Your task to perform on an android device: Open settings Image 0: 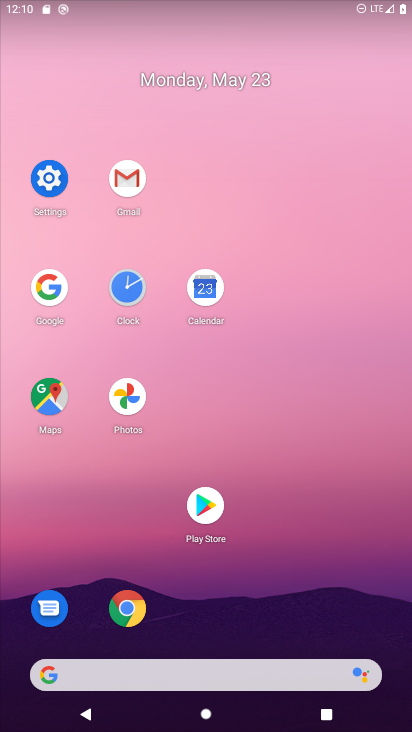
Step 0: click (31, 176)
Your task to perform on an android device: Open settings Image 1: 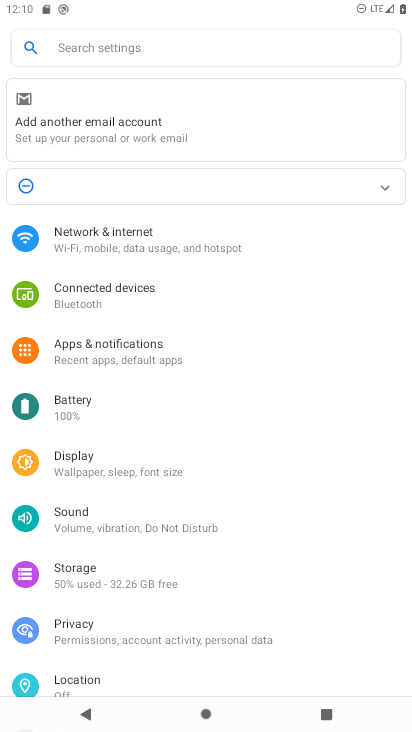
Step 1: task complete